Your task to perform on an android device: toggle data saver in the chrome app Image 0: 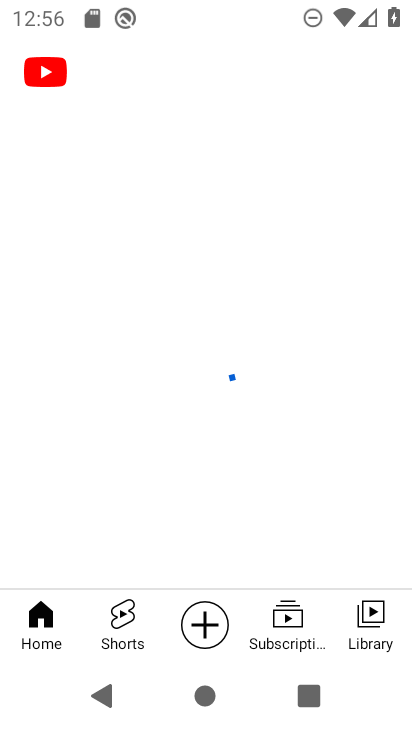
Step 0: drag from (305, 1) to (72, 26)
Your task to perform on an android device: toggle data saver in the chrome app Image 1: 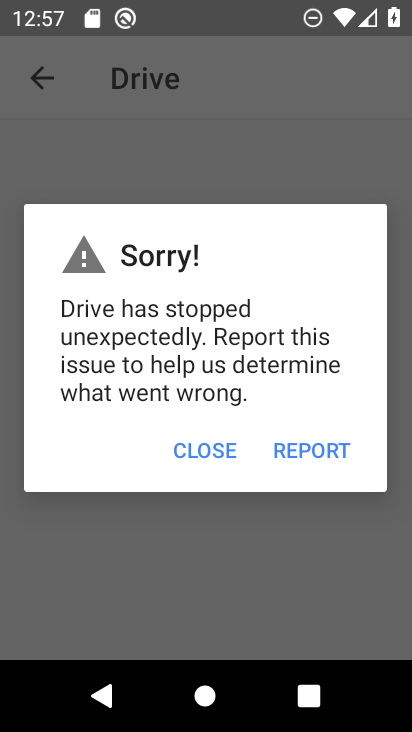
Step 1: press back button
Your task to perform on an android device: toggle data saver in the chrome app Image 2: 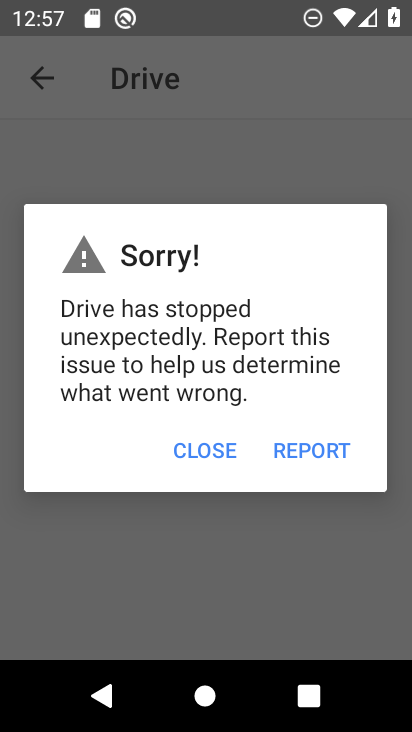
Step 2: click (200, 449)
Your task to perform on an android device: toggle data saver in the chrome app Image 3: 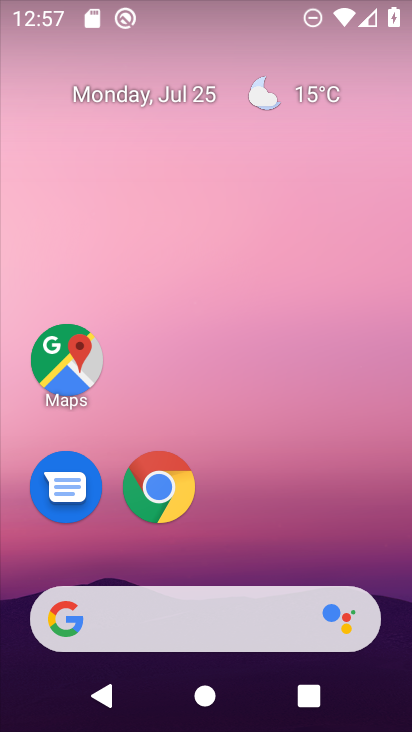
Step 3: click (155, 484)
Your task to perform on an android device: toggle data saver in the chrome app Image 4: 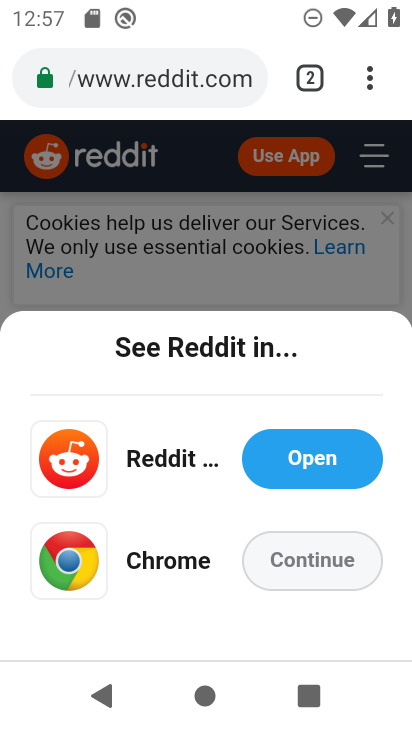
Step 4: drag from (368, 80) to (100, 552)
Your task to perform on an android device: toggle data saver in the chrome app Image 5: 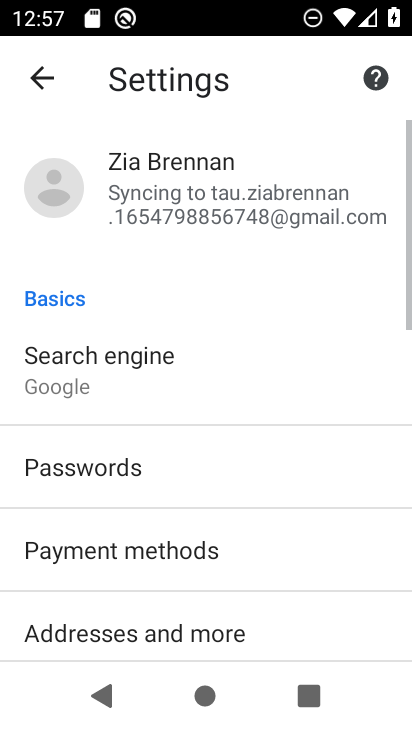
Step 5: drag from (121, 616) to (220, 10)
Your task to perform on an android device: toggle data saver in the chrome app Image 6: 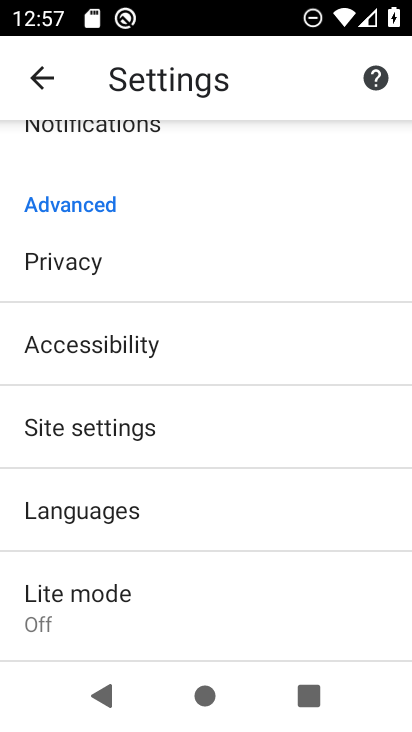
Step 6: click (86, 598)
Your task to perform on an android device: toggle data saver in the chrome app Image 7: 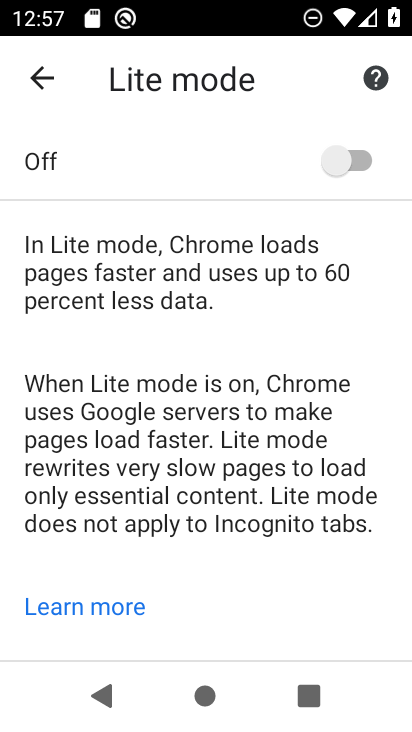
Step 7: click (345, 148)
Your task to perform on an android device: toggle data saver in the chrome app Image 8: 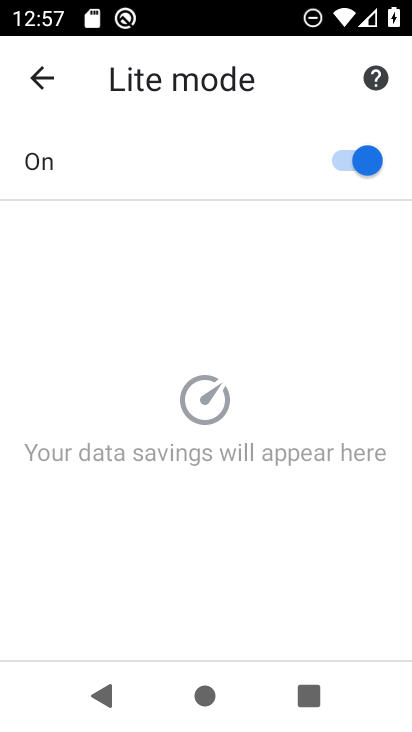
Step 8: task complete